Your task to perform on an android device: turn on sleep mode Image 0: 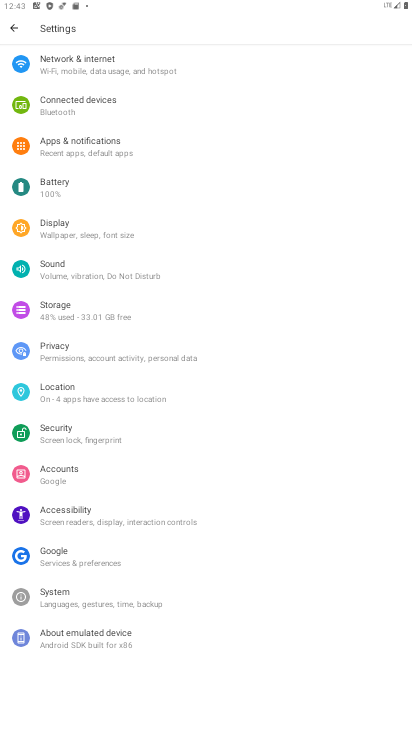
Step 0: task impossible